Your task to perform on an android device: Open the calendar app, open the side menu, and click the "Day" option Image 0: 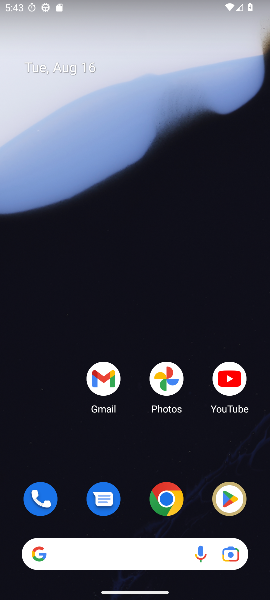
Step 0: drag from (132, 571) to (83, 8)
Your task to perform on an android device: Open the calendar app, open the side menu, and click the "Day" option Image 1: 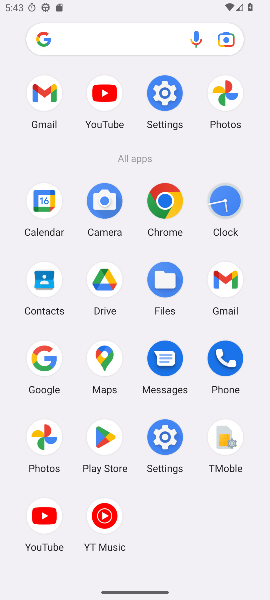
Step 1: click (35, 284)
Your task to perform on an android device: Open the calendar app, open the side menu, and click the "Day" option Image 2: 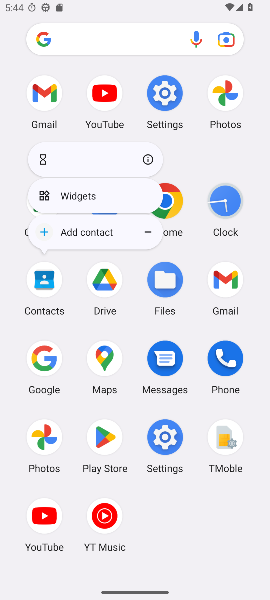
Step 2: click (217, 207)
Your task to perform on an android device: Open the calendar app, open the side menu, and click the "Day" option Image 3: 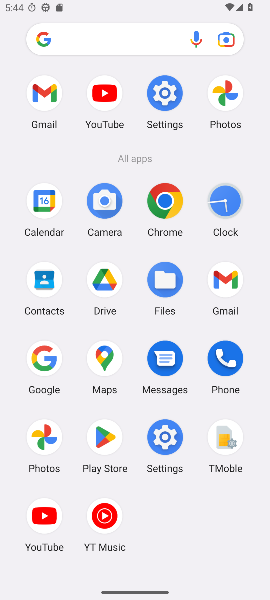
Step 3: click (52, 205)
Your task to perform on an android device: Open the calendar app, open the side menu, and click the "Day" option Image 4: 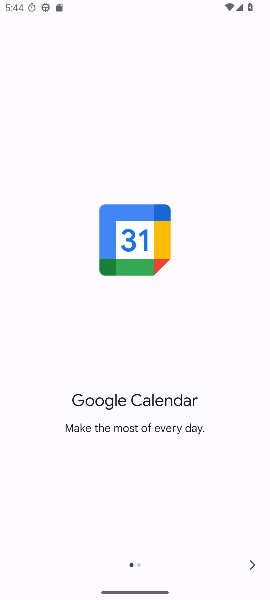
Step 4: click (253, 568)
Your task to perform on an android device: Open the calendar app, open the side menu, and click the "Day" option Image 5: 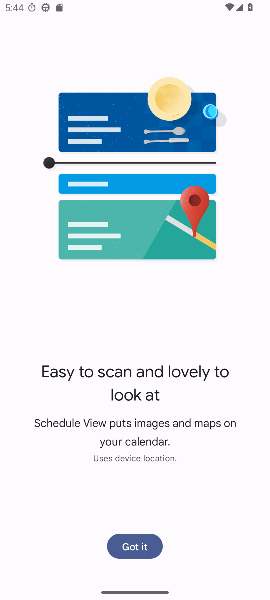
Step 5: click (144, 537)
Your task to perform on an android device: Open the calendar app, open the side menu, and click the "Day" option Image 6: 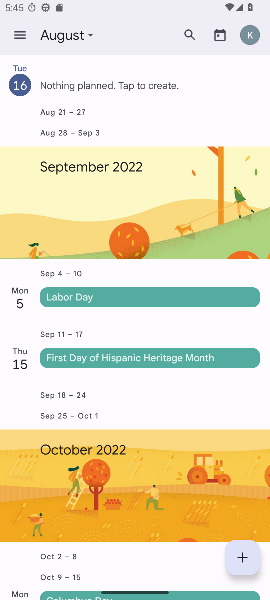
Step 6: click (62, 37)
Your task to perform on an android device: Open the calendar app, open the side menu, and click the "Day" option Image 7: 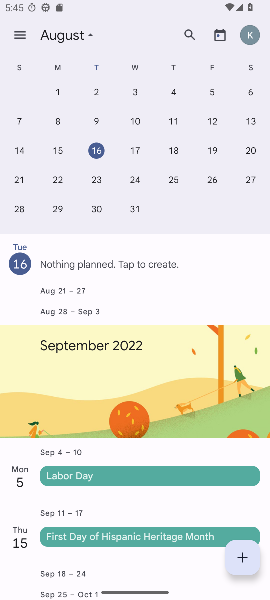
Step 7: click (27, 39)
Your task to perform on an android device: Open the calendar app, open the side menu, and click the "Day" option Image 8: 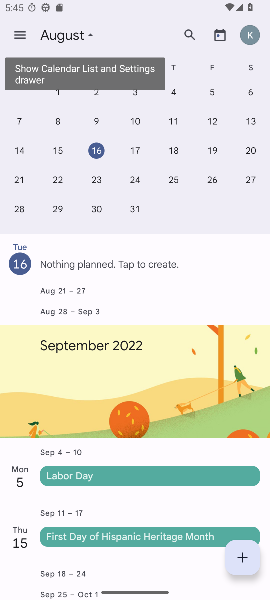
Step 8: click (27, 38)
Your task to perform on an android device: Open the calendar app, open the side menu, and click the "Day" option Image 9: 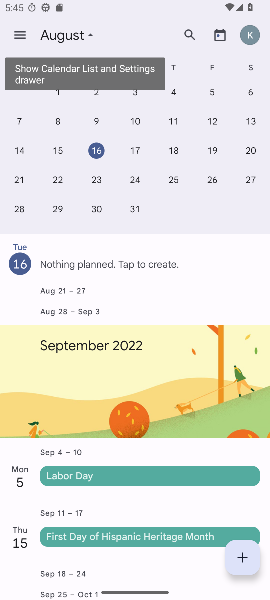
Step 9: click (19, 40)
Your task to perform on an android device: Open the calendar app, open the side menu, and click the "Day" option Image 10: 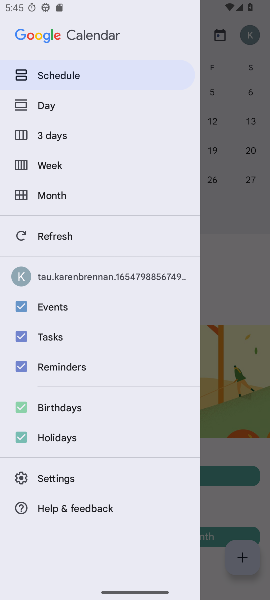
Step 10: click (44, 104)
Your task to perform on an android device: Open the calendar app, open the side menu, and click the "Day" option Image 11: 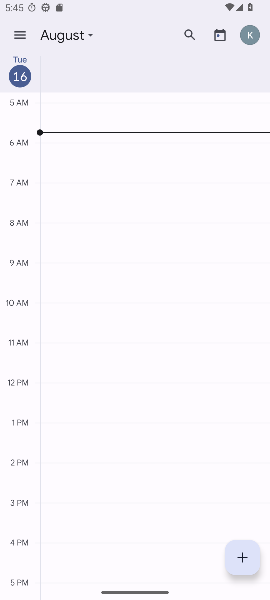
Step 11: task complete